Your task to perform on an android device: turn vacation reply on in the gmail app Image 0: 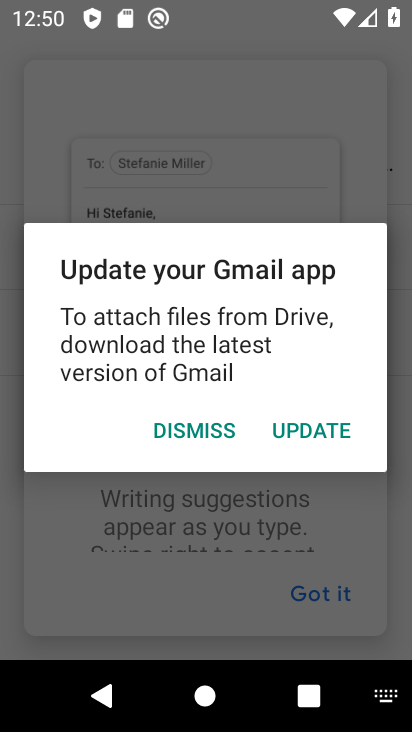
Step 0: press home button
Your task to perform on an android device: turn vacation reply on in the gmail app Image 1: 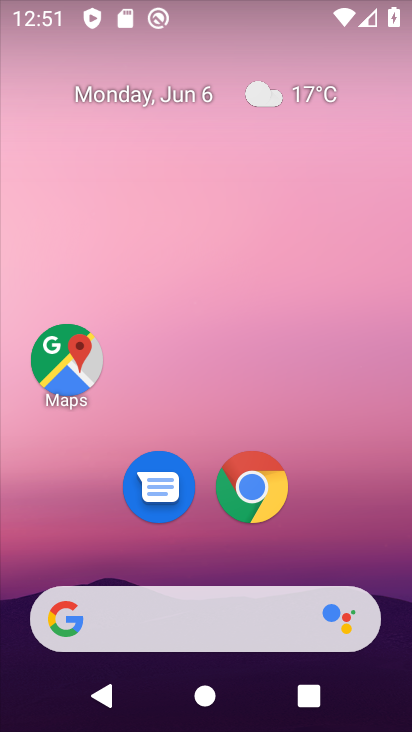
Step 1: drag from (350, 516) to (241, 65)
Your task to perform on an android device: turn vacation reply on in the gmail app Image 2: 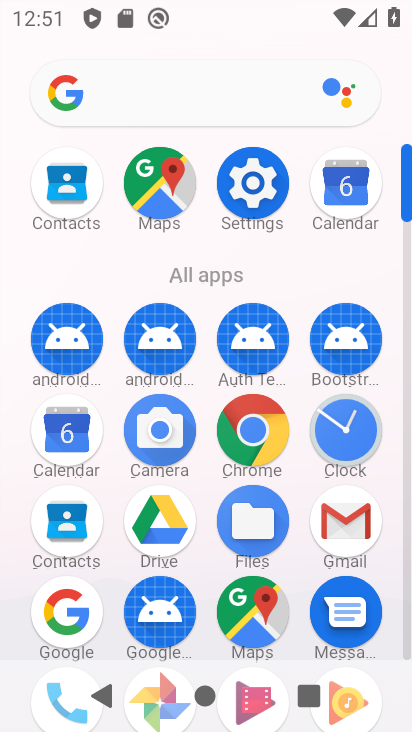
Step 2: drag from (301, 292) to (289, 117)
Your task to perform on an android device: turn vacation reply on in the gmail app Image 3: 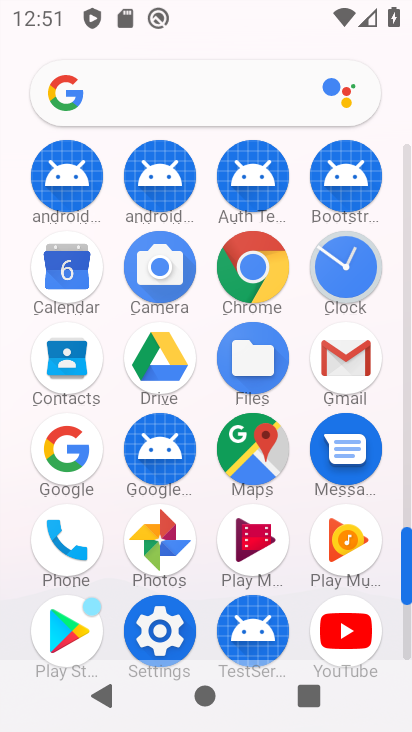
Step 3: click (346, 356)
Your task to perform on an android device: turn vacation reply on in the gmail app Image 4: 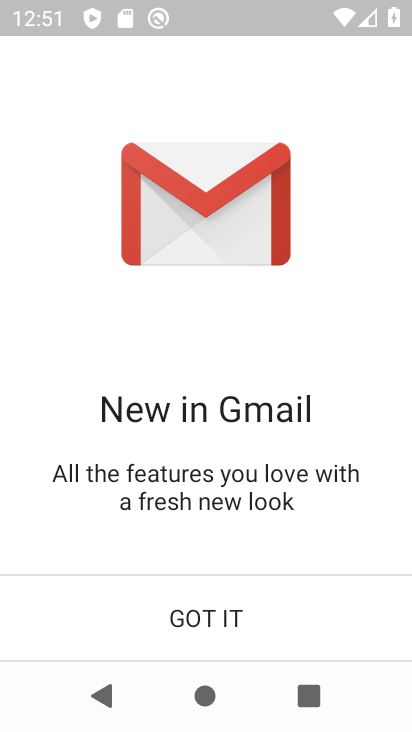
Step 4: click (229, 618)
Your task to perform on an android device: turn vacation reply on in the gmail app Image 5: 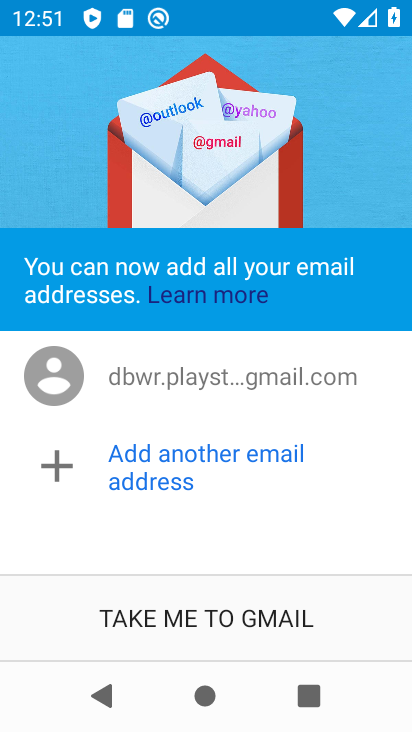
Step 5: click (229, 618)
Your task to perform on an android device: turn vacation reply on in the gmail app Image 6: 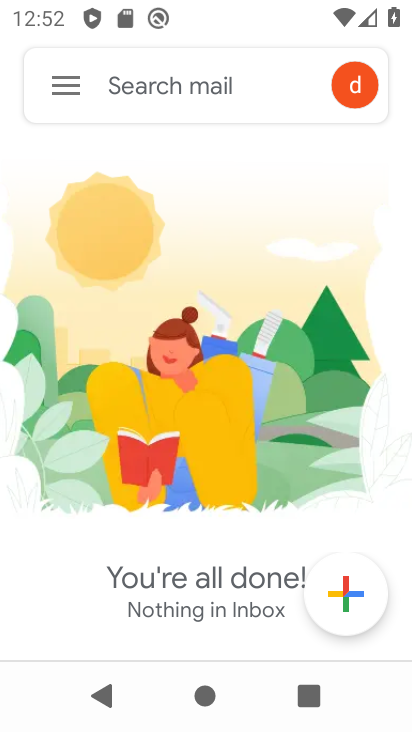
Step 6: click (62, 87)
Your task to perform on an android device: turn vacation reply on in the gmail app Image 7: 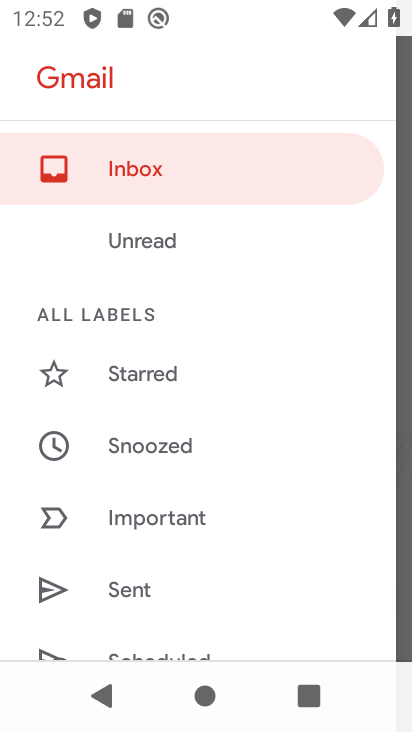
Step 7: drag from (135, 346) to (133, 247)
Your task to perform on an android device: turn vacation reply on in the gmail app Image 8: 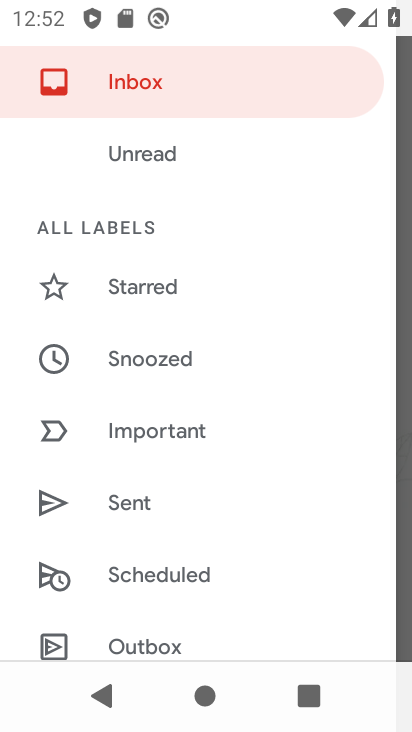
Step 8: drag from (138, 338) to (143, 245)
Your task to perform on an android device: turn vacation reply on in the gmail app Image 9: 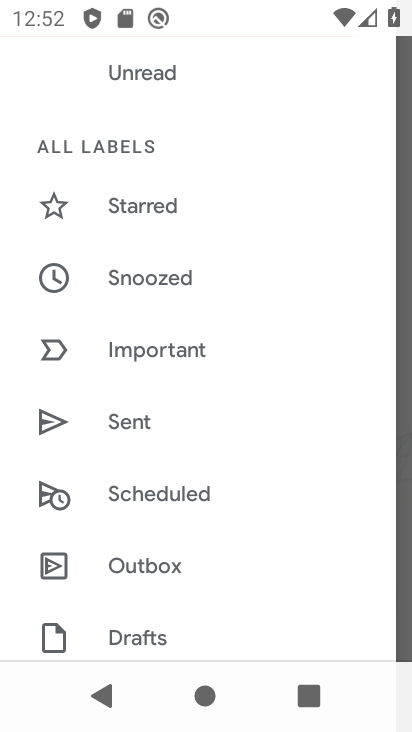
Step 9: drag from (139, 319) to (126, 238)
Your task to perform on an android device: turn vacation reply on in the gmail app Image 10: 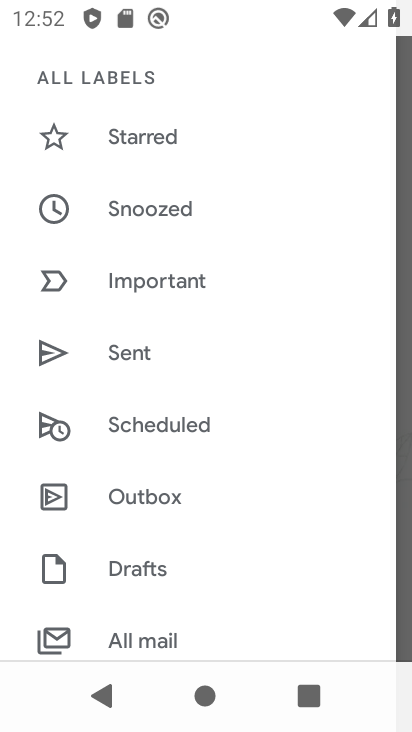
Step 10: drag from (151, 393) to (147, 314)
Your task to perform on an android device: turn vacation reply on in the gmail app Image 11: 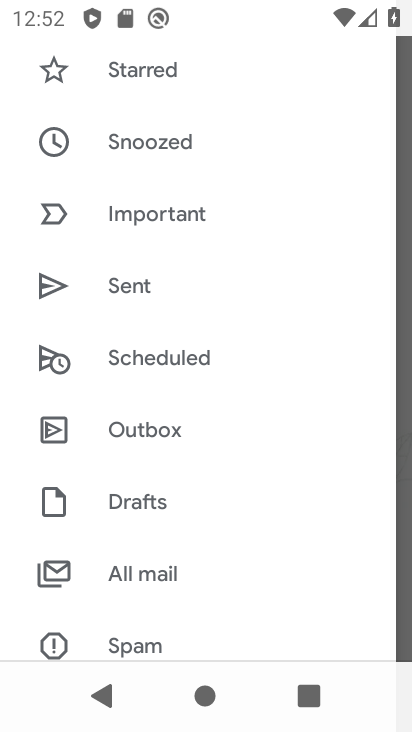
Step 11: drag from (150, 392) to (146, 296)
Your task to perform on an android device: turn vacation reply on in the gmail app Image 12: 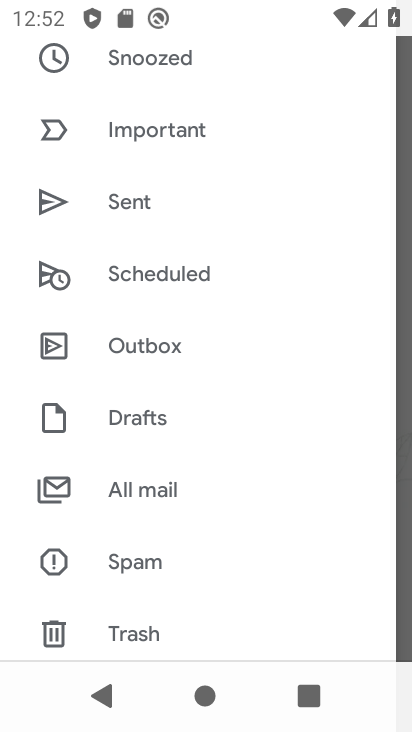
Step 12: drag from (143, 453) to (146, 357)
Your task to perform on an android device: turn vacation reply on in the gmail app Image 13: 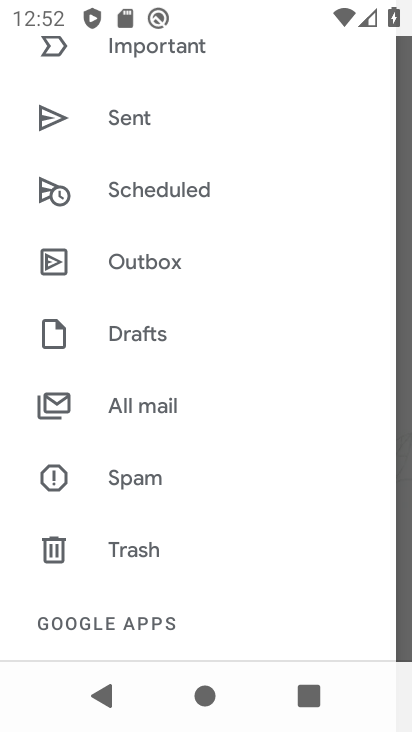
Step 13: drag from (129, 504) to (147, 408)
Your task to perform on an android device: turn vacation reply on in the gmail app Image 14: 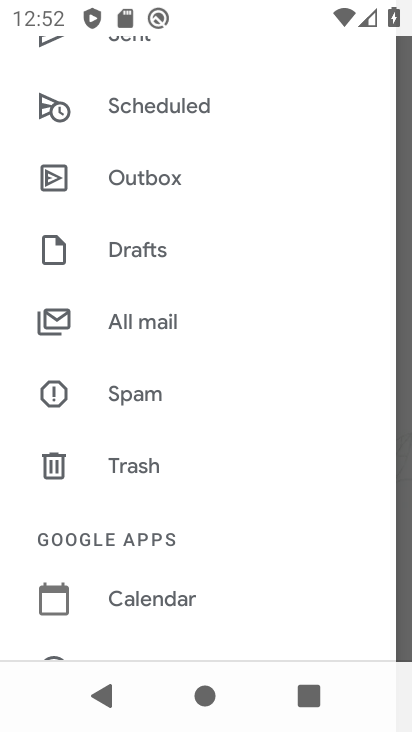
Step 14: drag from (151, 509) to (127, 388)
Your task to perform on an android device: turn vacation reply on in the gmail app Image 15: 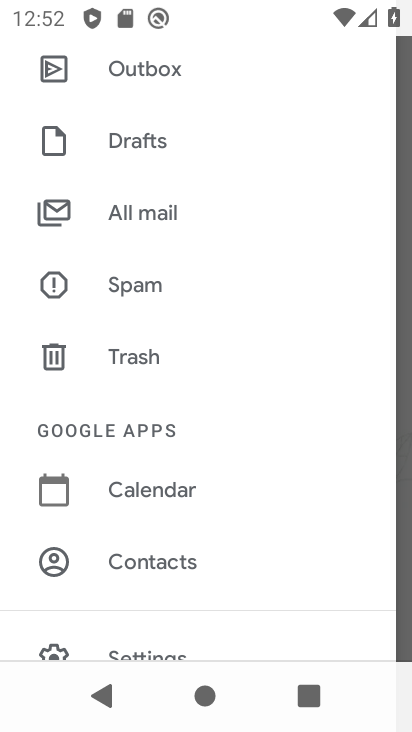
Step 15: drag from (158, 531) to (135, 410)
Your task to perform on an android device: turn vacation reply on in the gmail app Image 16: 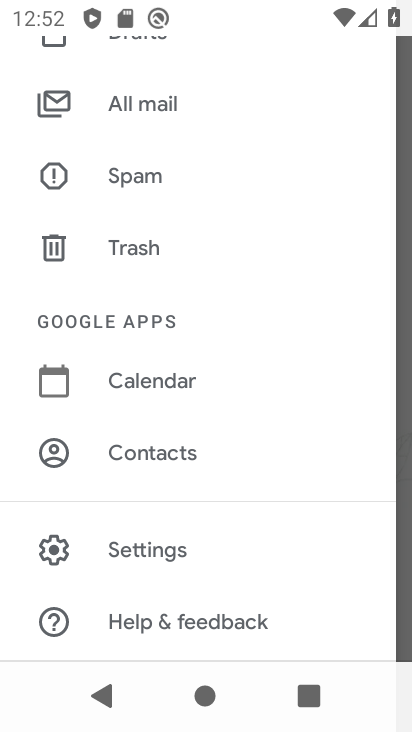
Step 16: drag from (171, 536) to (181, 436)
Your task to perform on an android device: turn vacation reply on in the gmail app Image 17: 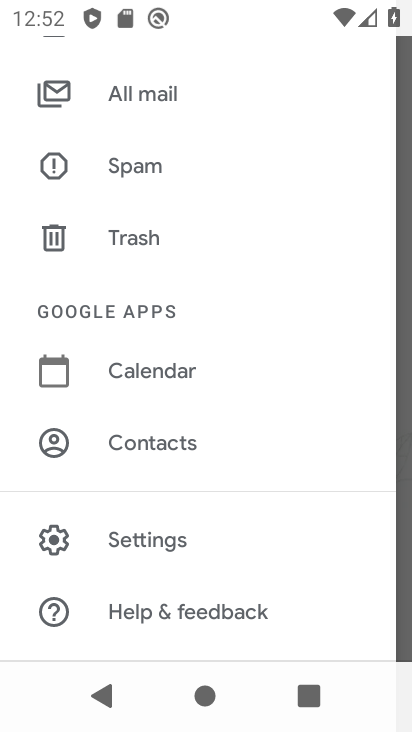
Step 17: click (180, 542)
Your task to perform on an android device: turn vacation reply on in the gmail app Image 18: 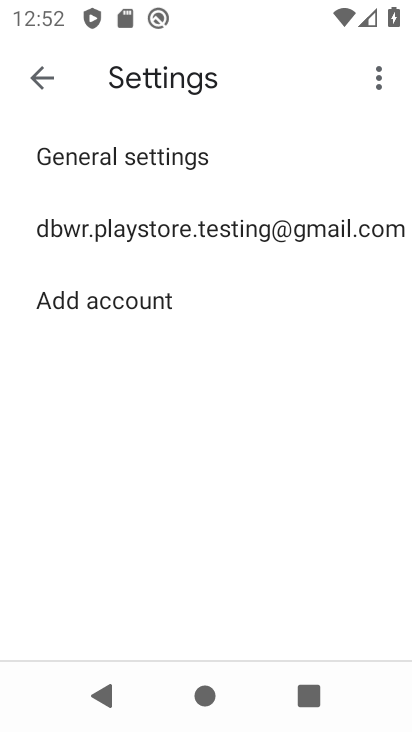
Step 18: click (176, 226)
Your task to perform on an android device: turn vacation reply on in the gmail app Image 19: 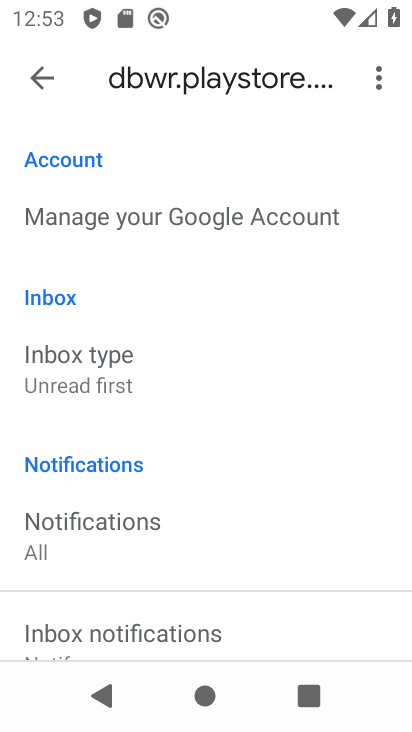
Step 19: task complete